Your task to perform on an android device: Open Yahoo.com Image 0: 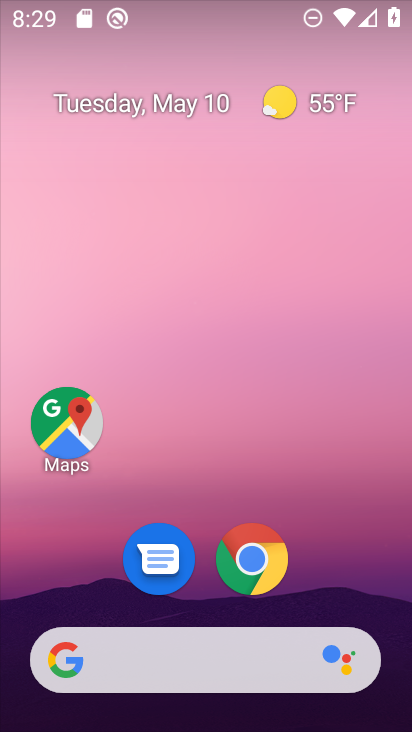
Step 0: click (252, 562)
Your task to perform on an android device: Open Yahoo.com Image 1: 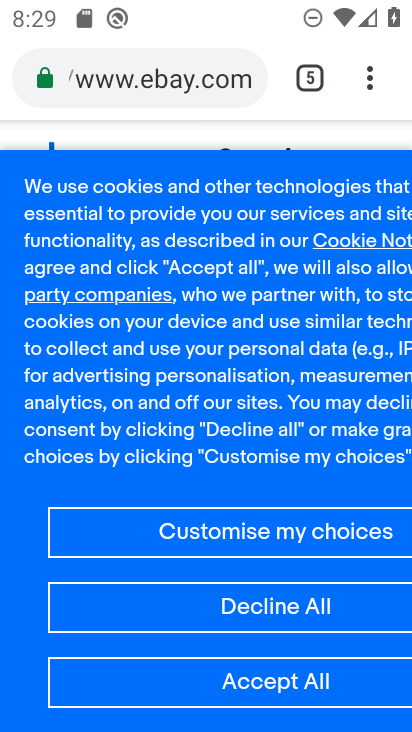
Step 1: click (372, 84)
Your task to perform on an android device: Open Yahoo.com Image 2: 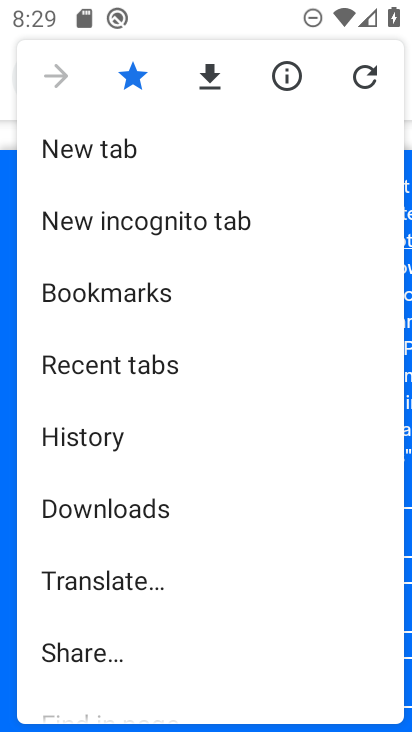
Step 2: click (118, 148)
Your task to perform on an android device: Open Yahoo.com Image 3: 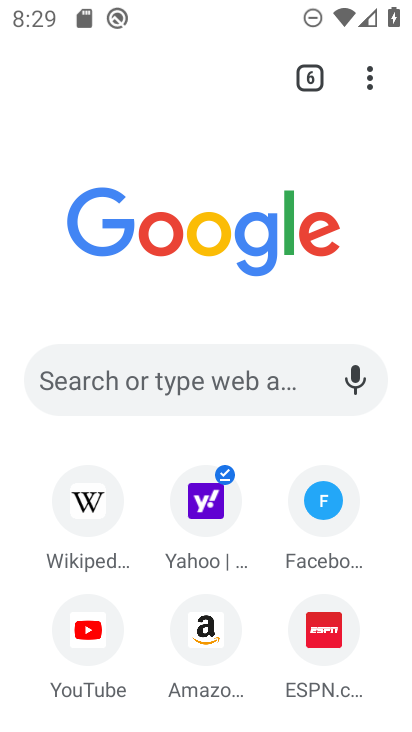
Step 3: click (205, 381)
Your task to perform on an android device: Open Yahoo.com Image 4: 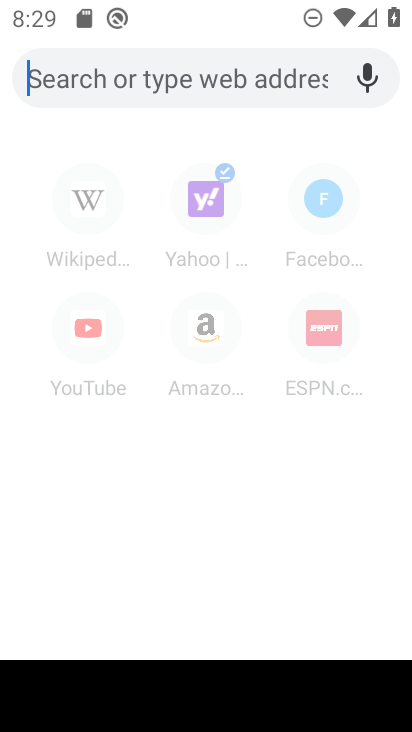
Step 4: type "Yahoo.com"
Your task to perform on an android device: Open Yahoo.com Image 5: 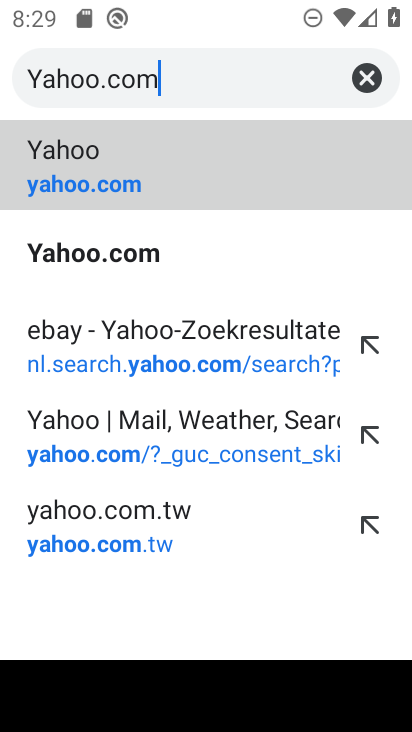
Step 5: type ""
Your task to perform on an android device: Open Yahoo.com Image 6: 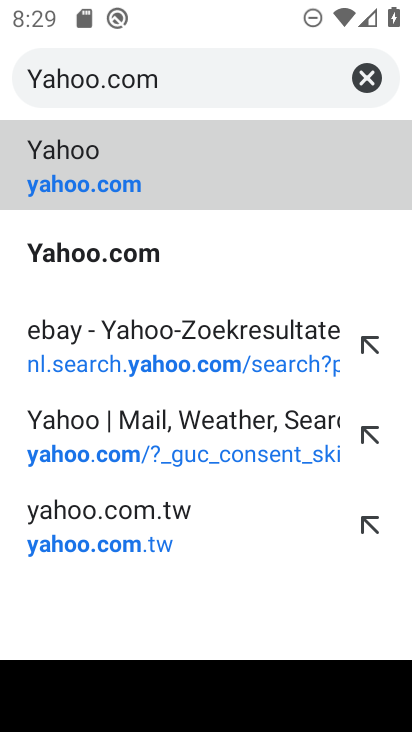
Step 6: click (47, 158)
Your task to perform on an android device: Open Yahoo.com Image 7: 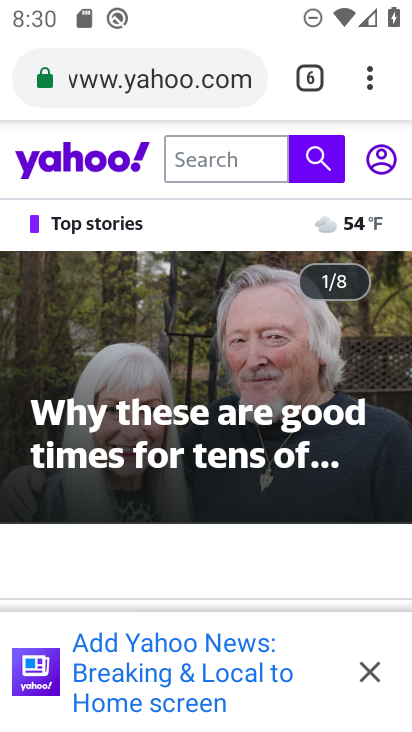
Step 7: task complete